Your task to perform on an android device: empty trash in the gmail app Image 0: 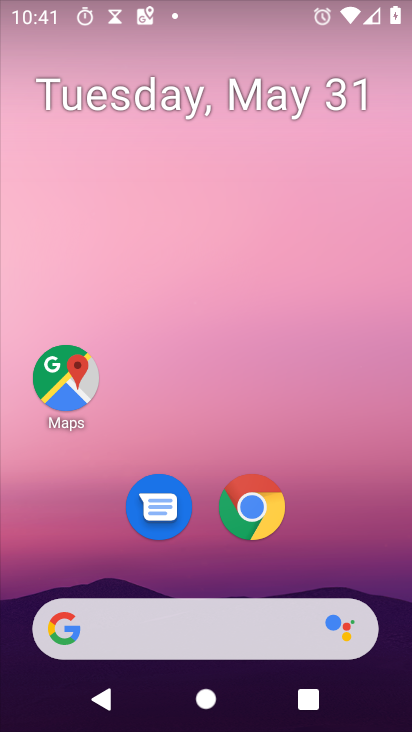
Step 0: drag from (72, 533) to (316, 198)
Your task to perform on an android device: empty trash in the gmail app Image 1: 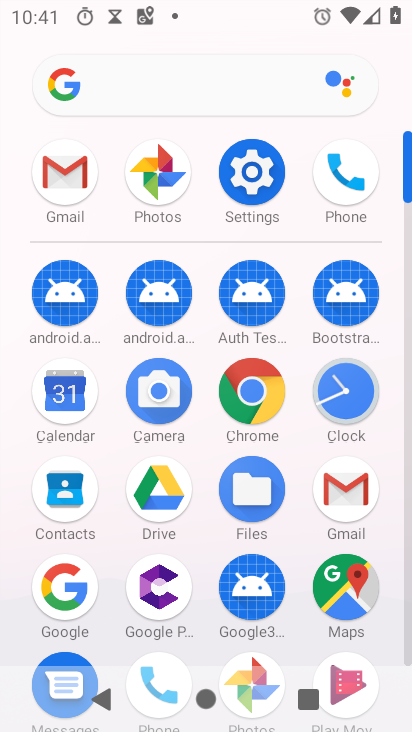
Step 1: click (344, 497)
Your task to perform on an android device: empty trash in the gmail app Image 2: 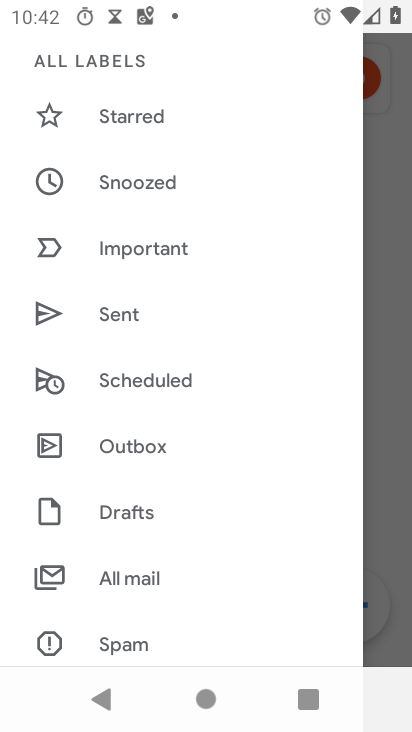
Step 2: drag from (17, 555) to (246, 153)
Your task to perform on an android device: empty trash in the gmail app Image 3: 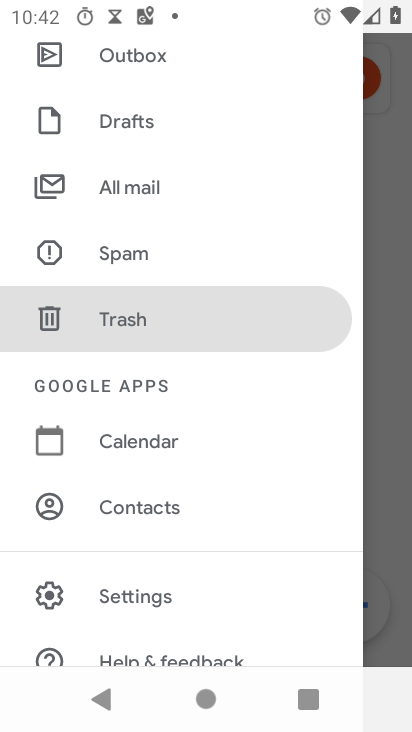
Step 3: click (179, 320)
Your task to perform on an android device: empty trash in the gmail app Image 4: 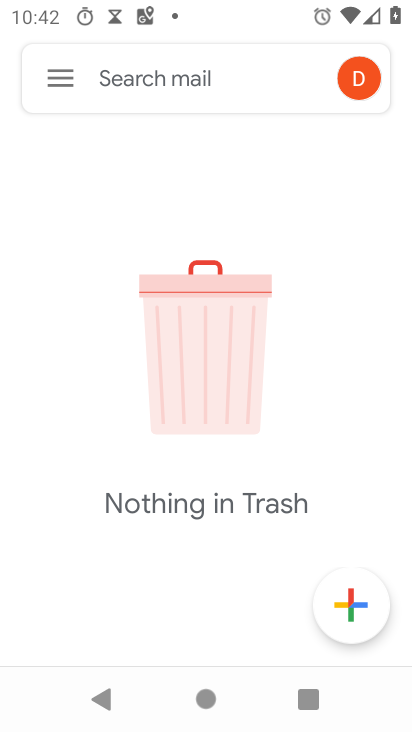
Step 4: task complete